Your task to perform on an android device: Go to settings Image 0: 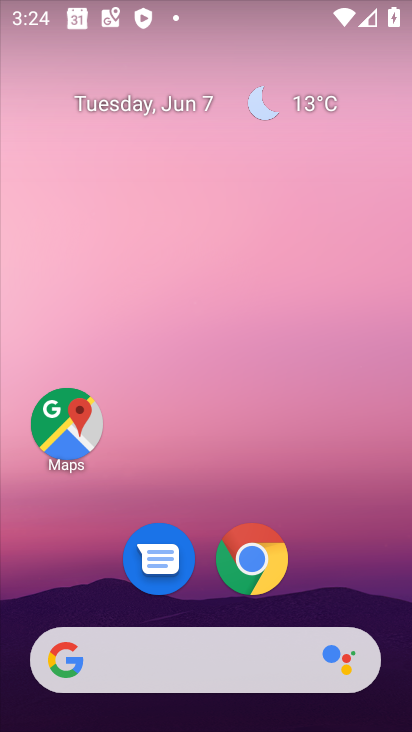
Step 0: drag from (339, 519) to (235, 96)
Your task to perform on an android device: Go to settings Image 1: 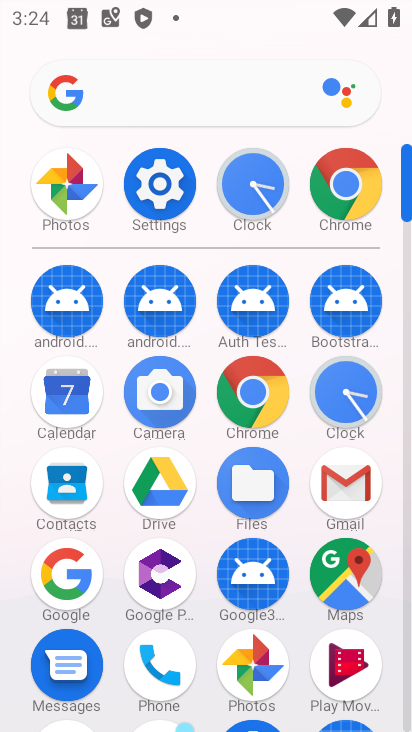
Step 1: click (159, 185)
Your task to perform on an android device: Go to settings Image 2: 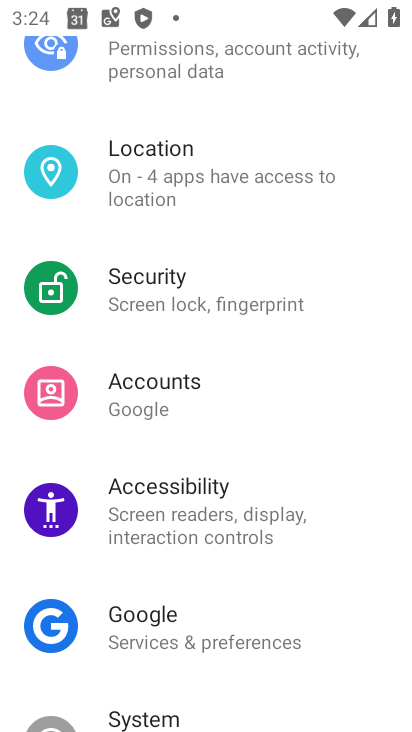
Step 2: task complete